Your task to perform on an android device: Turn on the flashlight Image 0: 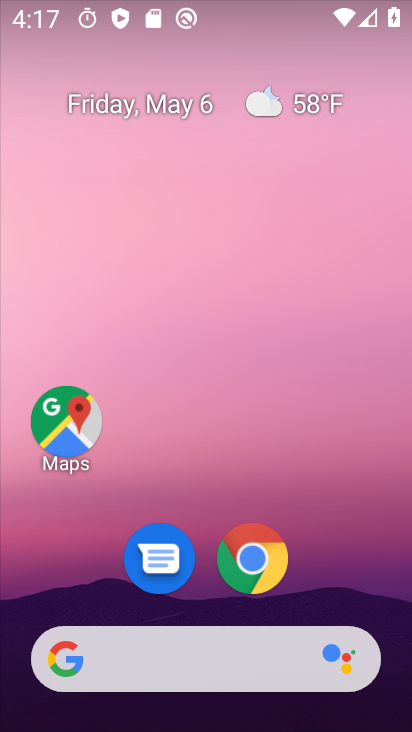
Step 0: drag from (285, 0) to (323, 600)
Your task to perform on an android device: Turn on the flashlight Image 1: 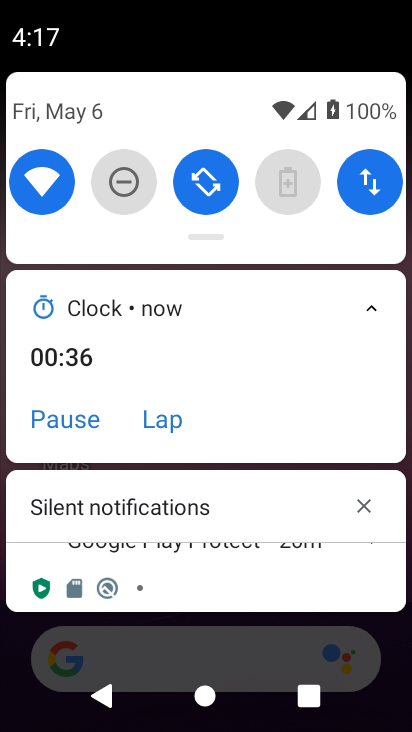
Step 1: task complete